Your task to perform on an android device: turn on wifi Image 0: 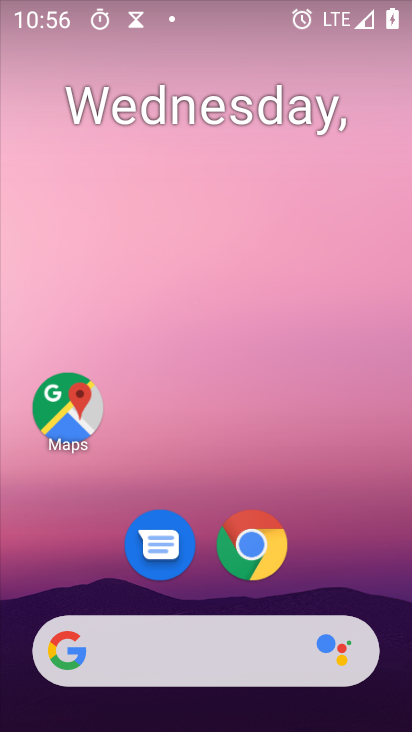
Step 0: press home button
Your task to perform on an android device: turn on wifi Image 1: 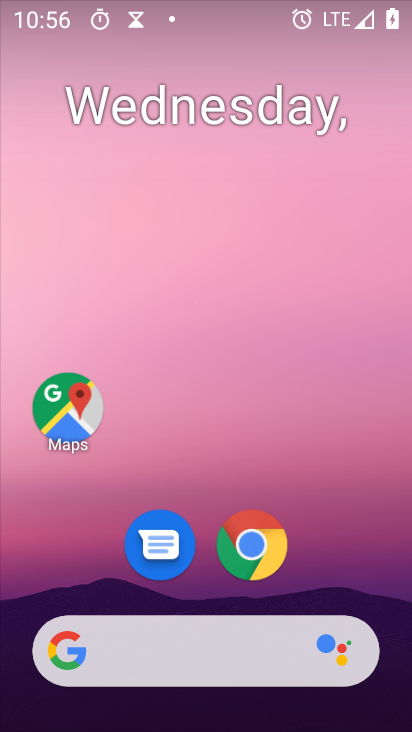
Step 1: drag from (170, 648) to (331, 106)
Your task to perform on an android device: turn on wifi Image 2: 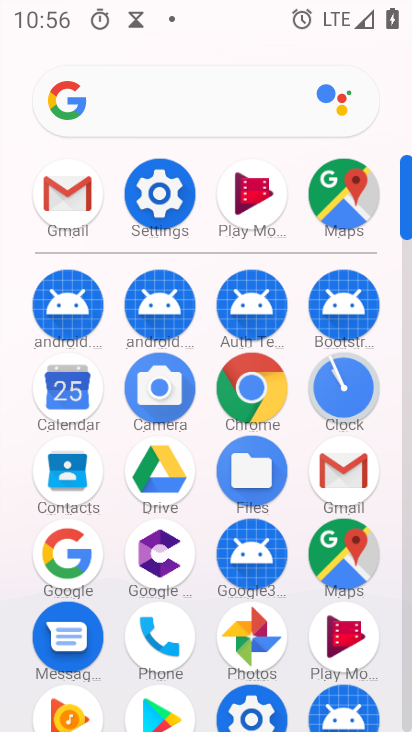
Step 2: click (145, 197)
Your task to perform on an android device: turn on wifi Image 3: 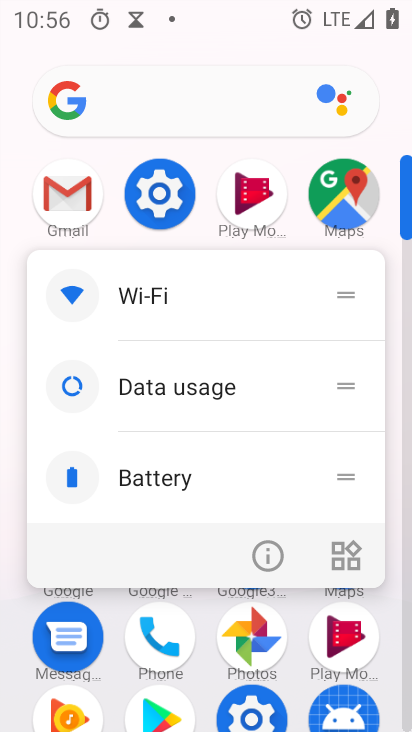
Step 3: click (165, 211)
Your task to perform on an android device: turn on wifi Image 4: 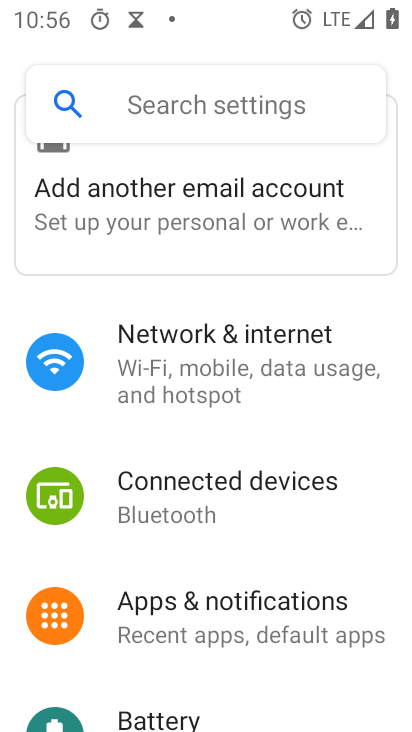
Step 4: click (247, 341)
Your task to perform on an android device: turn on wifi Image 5: 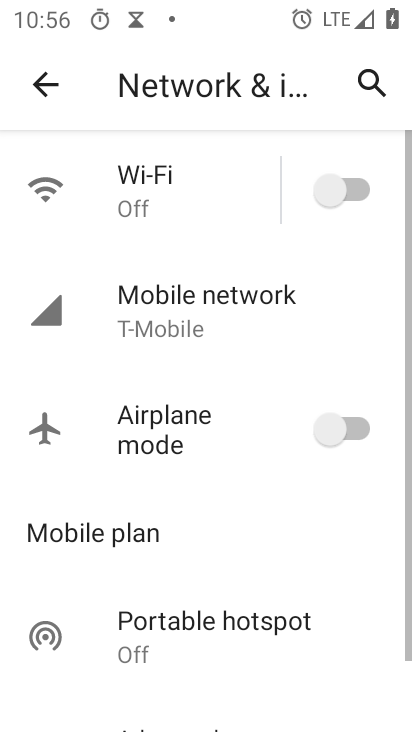
Step 5: click (357, 187)
Your task to perform on an android device: turn on wifi Image 6: 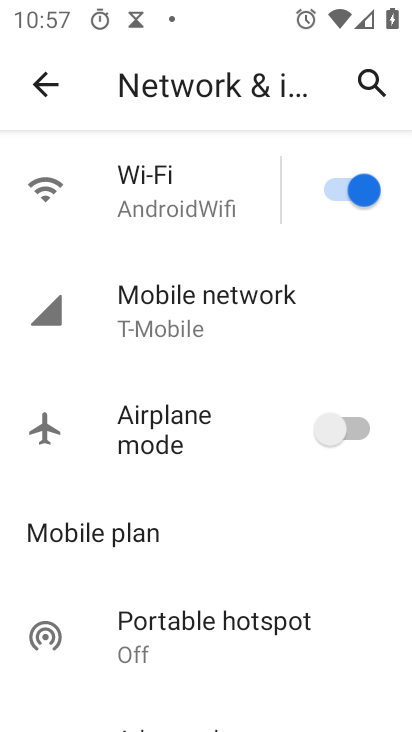
Step 6: task complete